Your task to perform on an android device: open a bookmark in the chrome app Image 0: 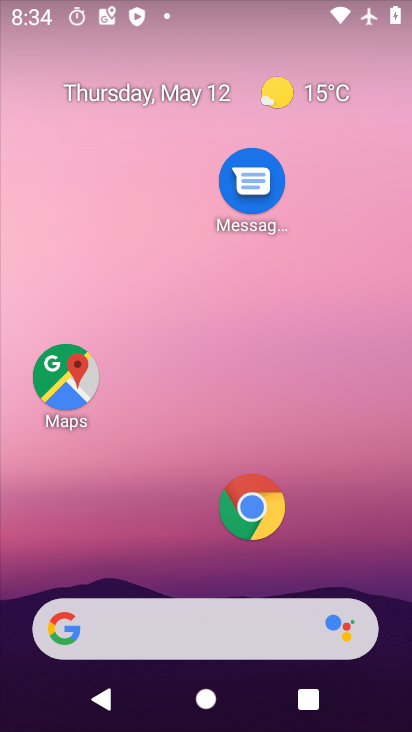
Step 0: click (246, 502)
Your task to perform on an android device: open a bookmark in the chrome app Image 1: 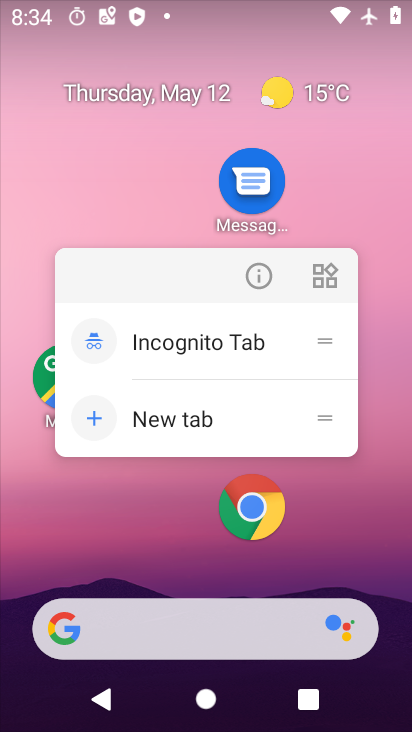
Step 1: click (246, 502)
Your task to perform on an android device: open a bookmark in the chrome app Image 2: 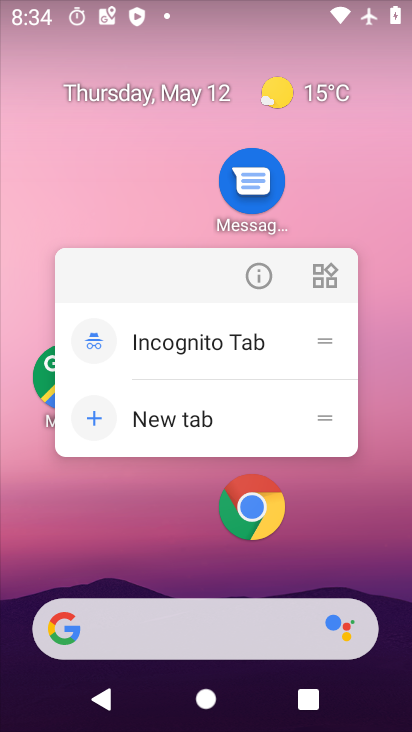
Step 2: click (246, 501)
Your task to perform on an android device: open a bookmark in the chrome app Image 3: 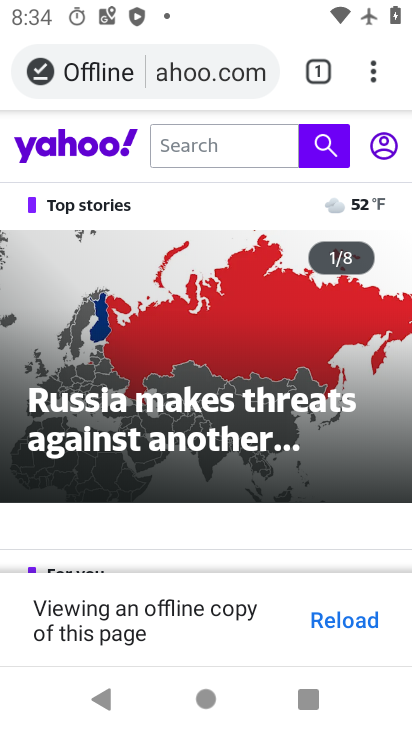
Step 3: click (373, 75)
Your task to perform on an android device: open a bookmark in the chrome app Image 4: 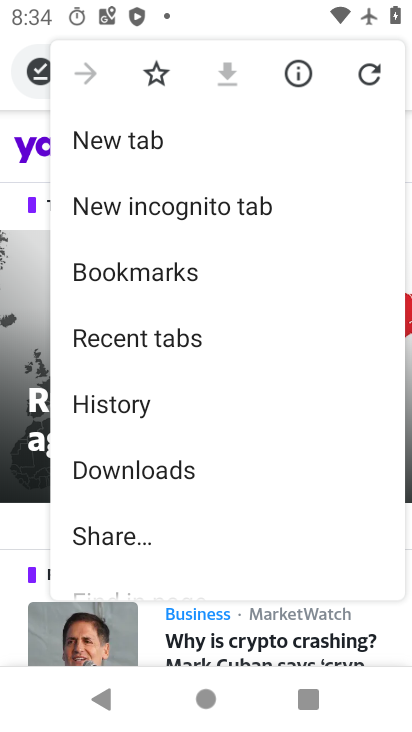
Step 4: click (136, 291)
Your task to perform on an android device: open a bookmark in the chrome app Image 5: 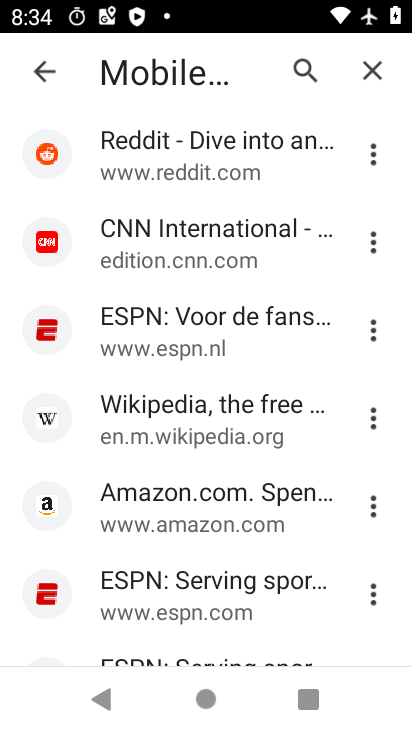
Step 5: click (153, 486)
Your task to perform on an android device: open a bookmark in the chrome app Image 6: 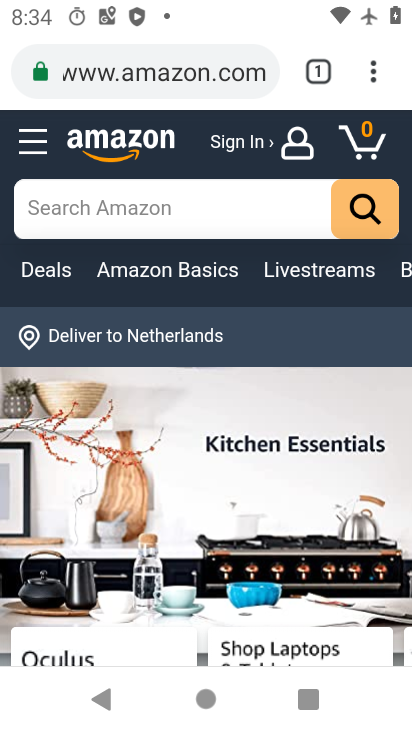
Step 6: task complete